Your task to perform on an android device: Open Google Chrome and open the bookmarks view Image 0: 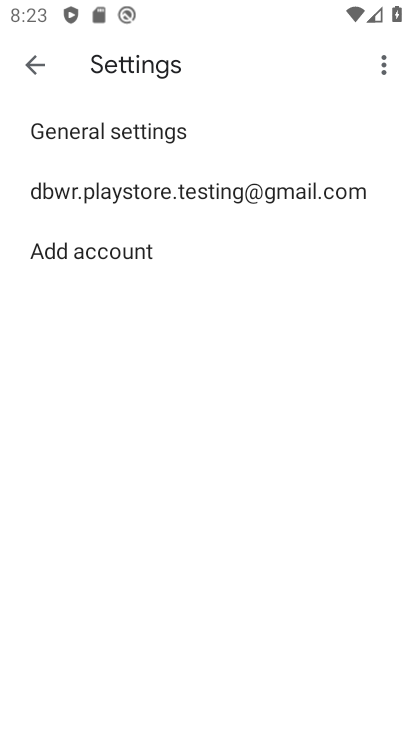
Step 0: click (48, 60)
Your task to perform on an android device: Open Google Chrome and open the bookmarks view Image 1: 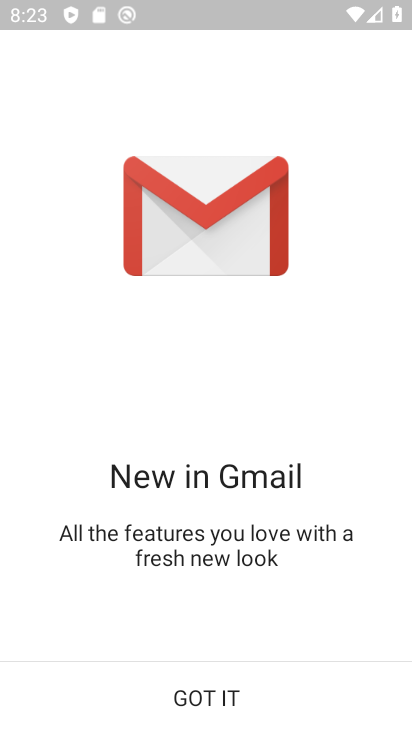
Step 1: press home button
Your task to perform on an android device: Open Google Chrome and open the bookmarks view Image 2: 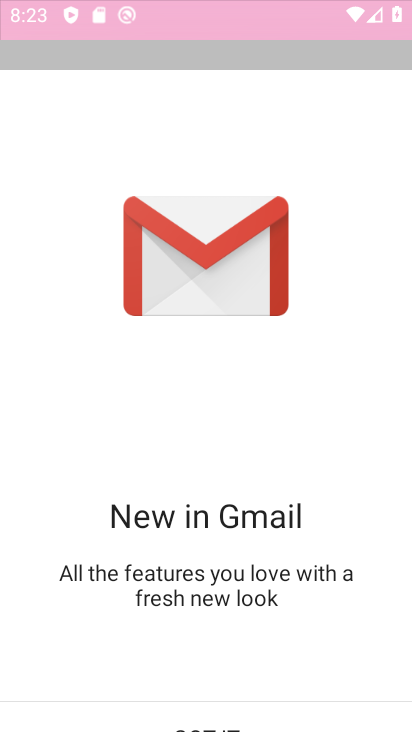
Step 2: press home button
Your task to perform on an android device: Open Google Chrome and open the bookmarks view Image 3: 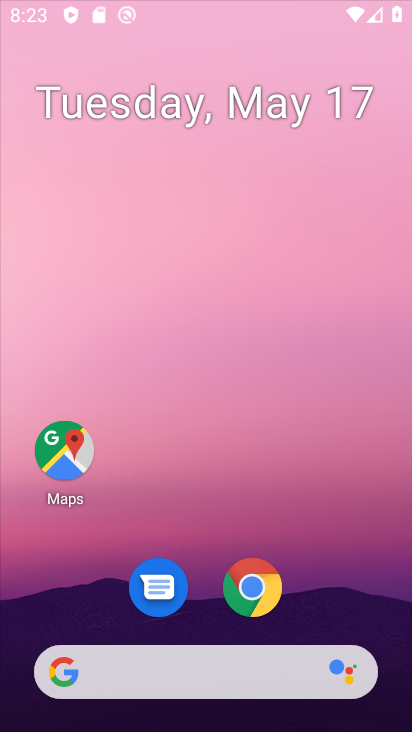
Step 3: press home button
Your task to perform on an android device: Open Google Chrome and open the bookmarks view Image 4: 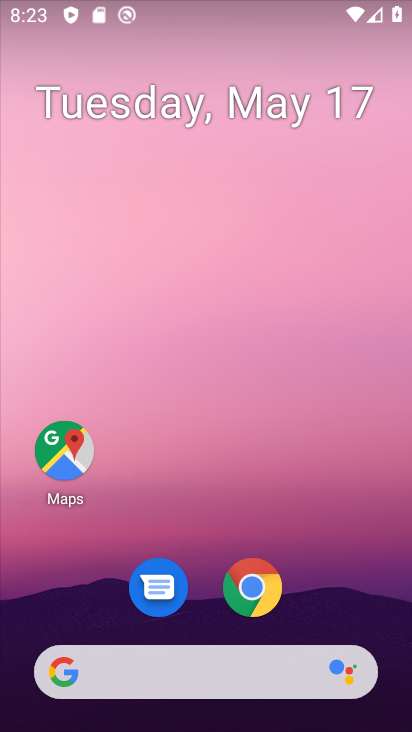
Step 4: drag from (341, 564) to (247, 23)
Your task to perform on an android device: Open Google Chrome and open the bookmarks view Image 5: 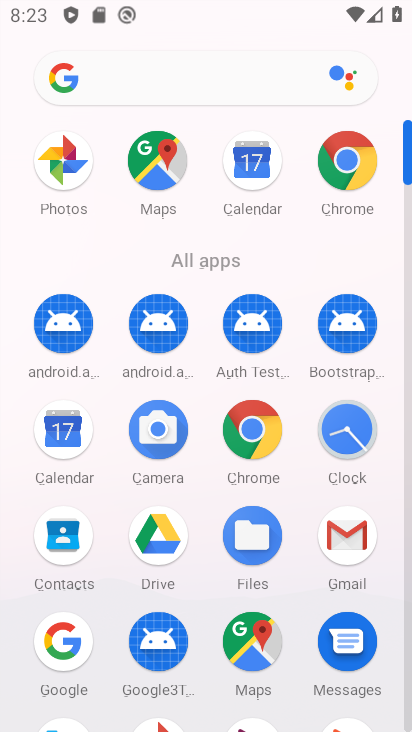
Step 5: click (356, 152)
Your task to perform on an android device: Open Google Chrome and open the bookmarks view Image 6: 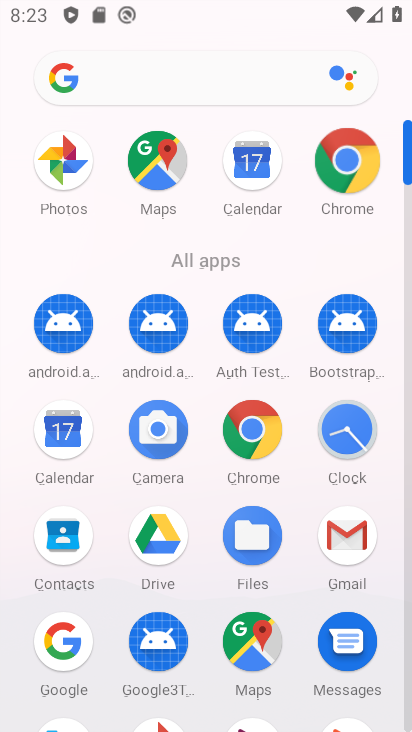
Step 6: click (356, 153)
Your task to perform on an android device: Open Google Chrome and open the bookmarks view Image 7: 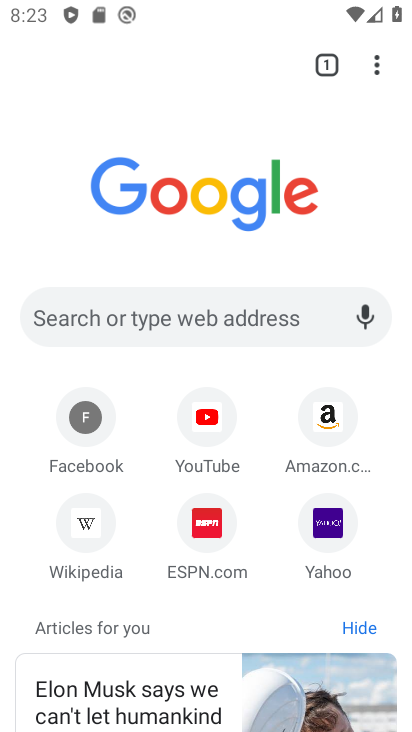
Step 7: drag from (376, 70) to (143, 243)
Your task to perform on an android device: Open Google Chrome and open the bookmarks view Image 8: 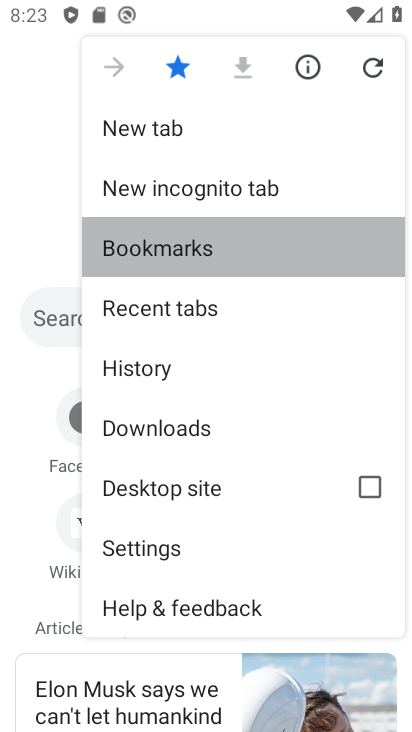
Step 8: click (142, 242)
Your task to perform on an android device: Open Google Chrome and open the bookmarks view Image 9: 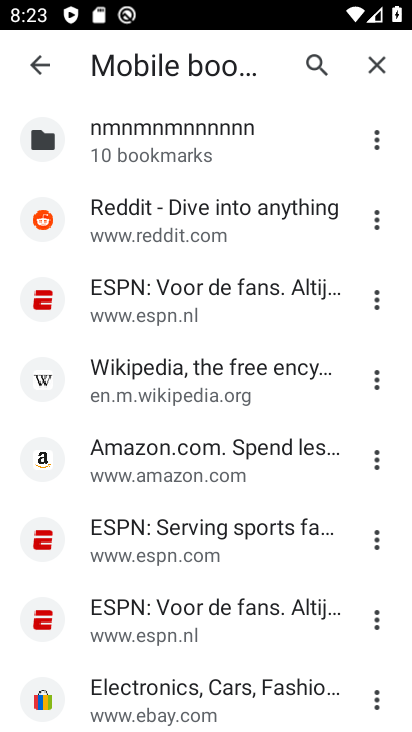
Step 9: task complete